Your task to perform on an android device: toggle notification dots Image 0: 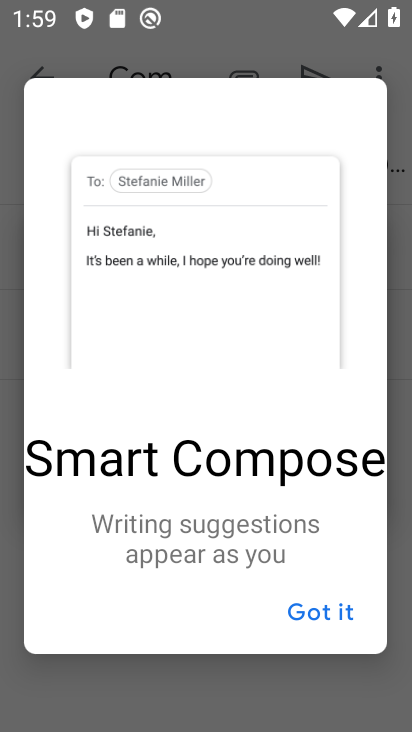
Step 0: press home button
Your task to perform on an android device: toggle notification dots Image 1: 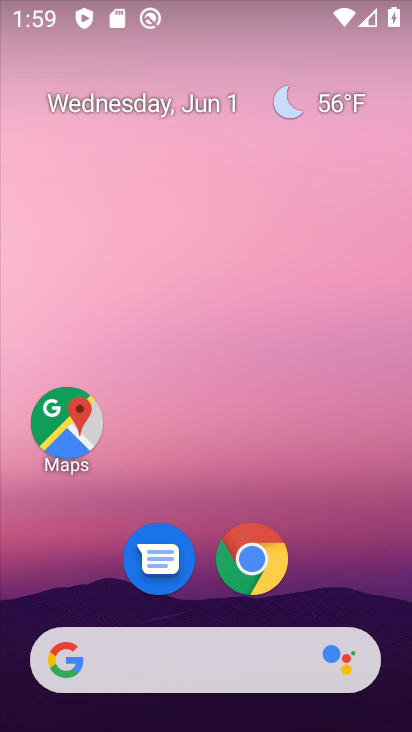
Step 1: drag from (346, 574) to (268, 187)
Your task to perform on an android device: toggle notification dots Image 2: 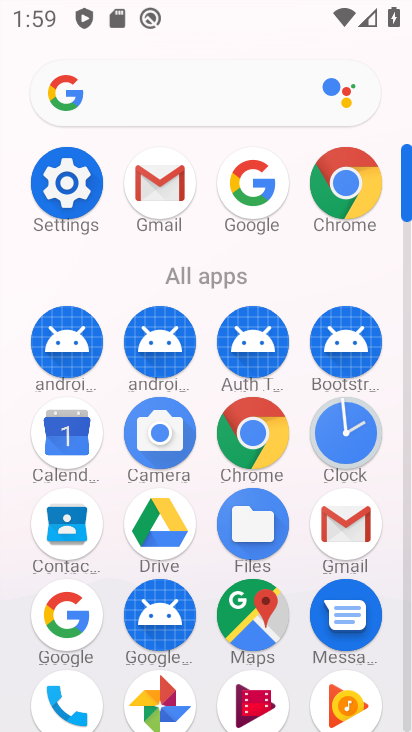
Step 2: click (63, 184)
Your task to perform on an android device: toggle notification dots Image 3: 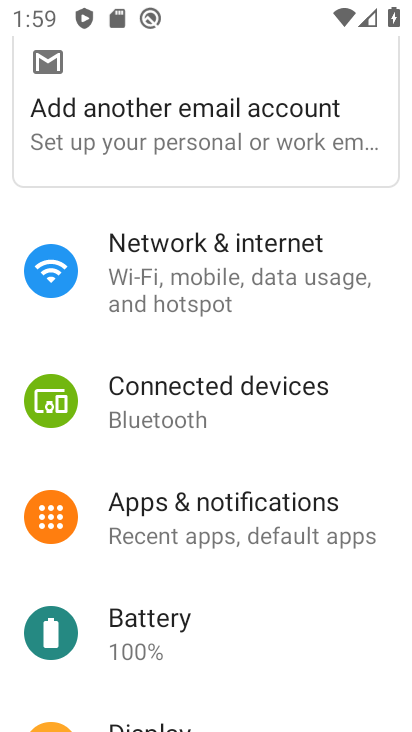
Step 3: click (225, 503)
Your task to perform on an android device: toggle notification dots Image 4: 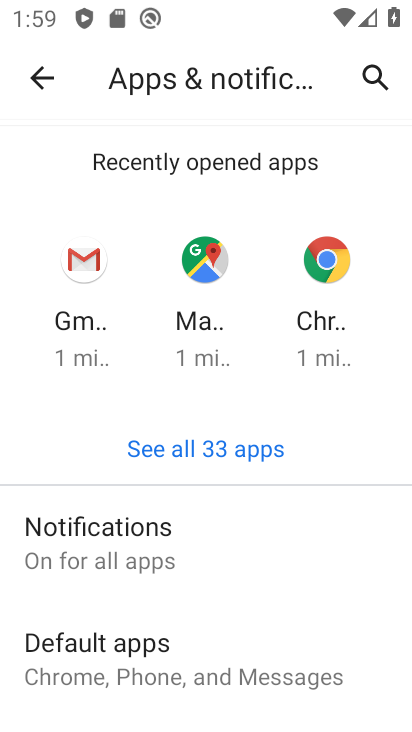
Step 4: click (147, 525)
Your task to perform on an android device: toggle notification dots Image 5: 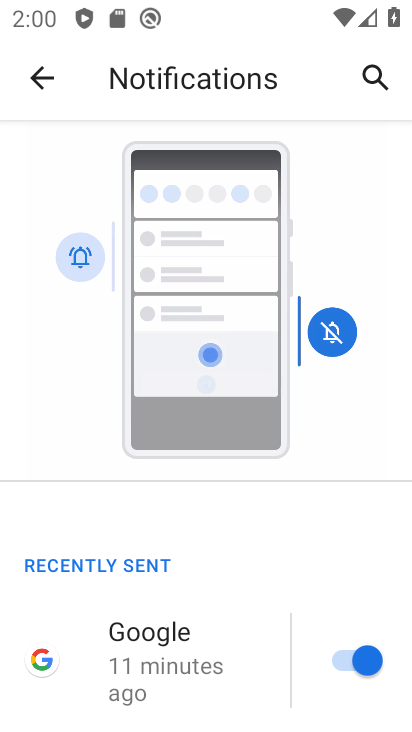
Step 5: drag from (214, 529) to (210, 333)
Your task to perform on an android device: toggle notification dots Image 6: 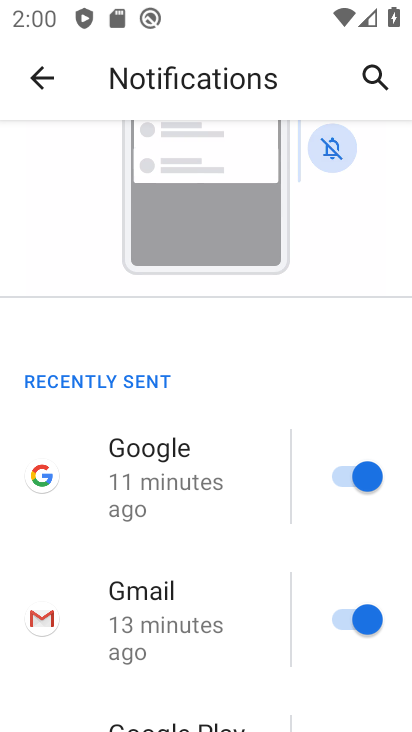
Step 6: drag from (167, 538) to (166, 337)
Your task to perform on an android device: toggle notification dots Image 7: 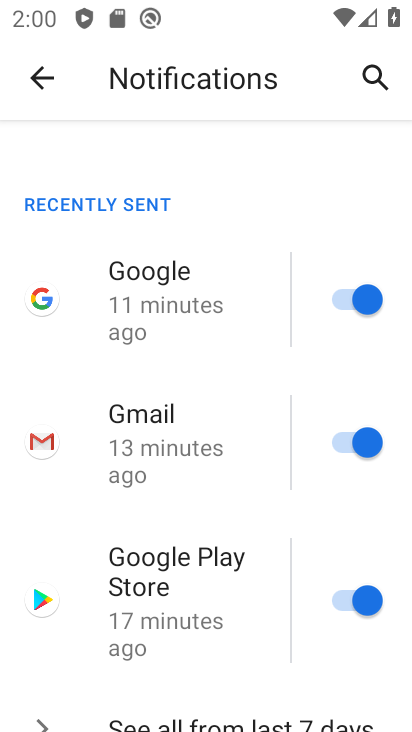
Step 7: drag from (135, 510) to (171, 337)
Your task to perform on an android device: toggle notification dots Image 8: 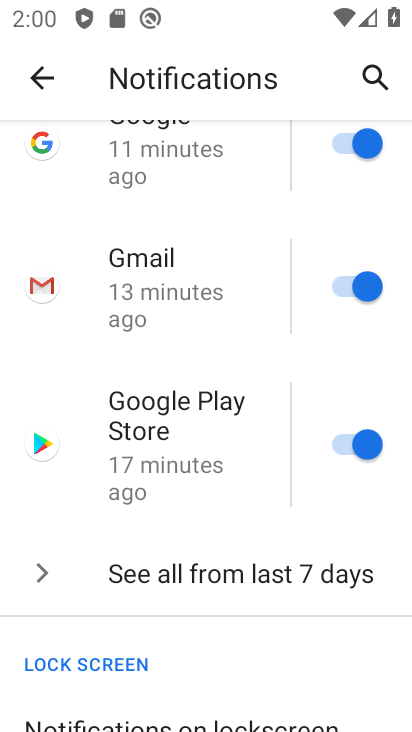
Step 8: drag from (141, 534) to (172, 380)
Your task to perform on an android device: toggle notification dots Image 9: 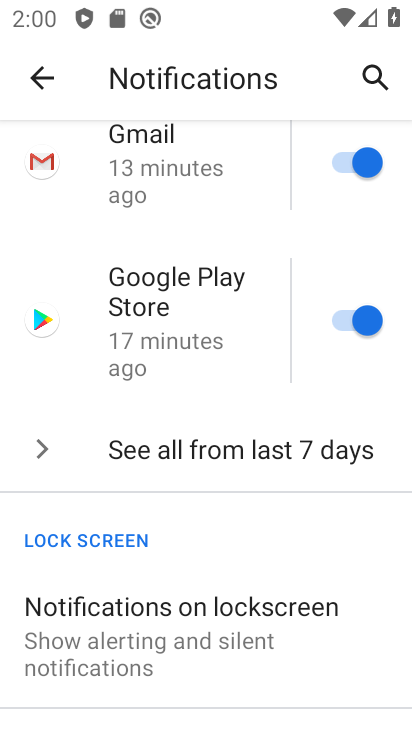
Step 9: drag from (177, 579) to (189, 402)
Your task to perform on an android device: toggle notification dots Image 10: 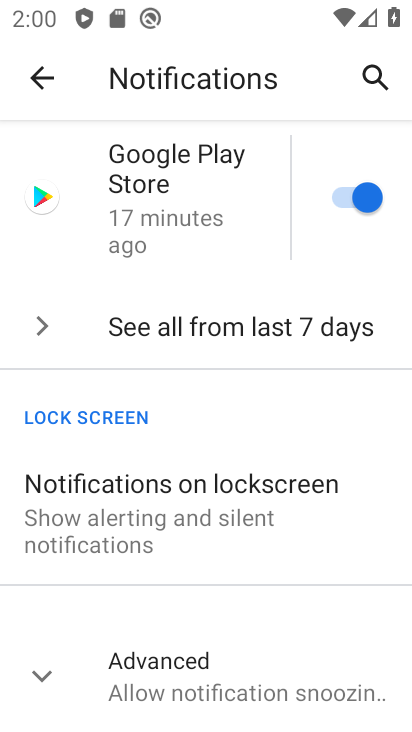
Step 10: click (202, 673)
Your task to perform on an android device: toggle notification dots Image 11: 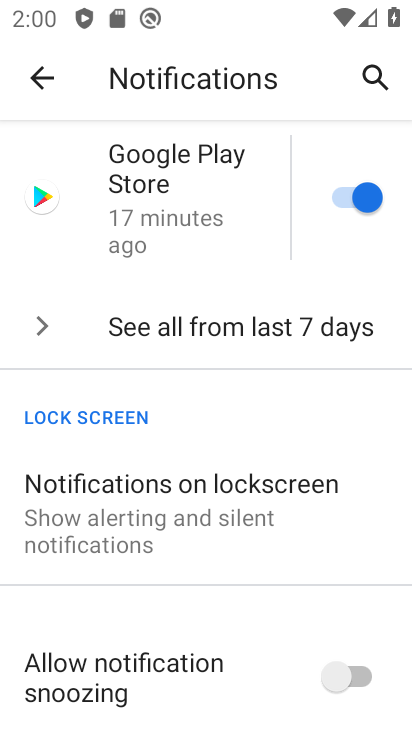
Step 11: drag from (204, 604) to (231, 460)
Your task to perform on an android device: toggle notification dots Image 12: 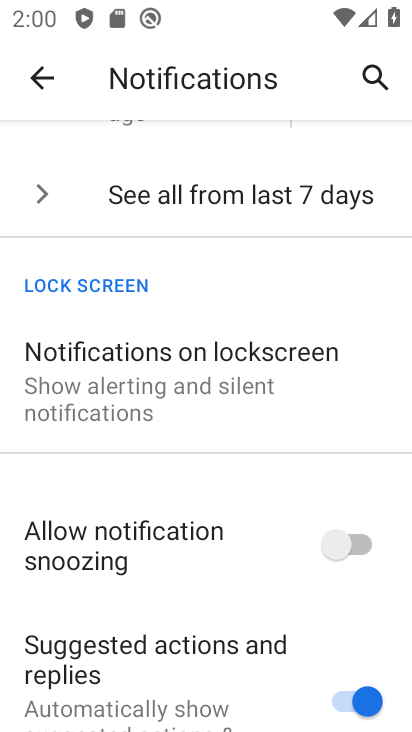
Step 12: drag from (167, 621) to (148, 454)
Your task to perform on an android device: toggle notification dots Image 13: 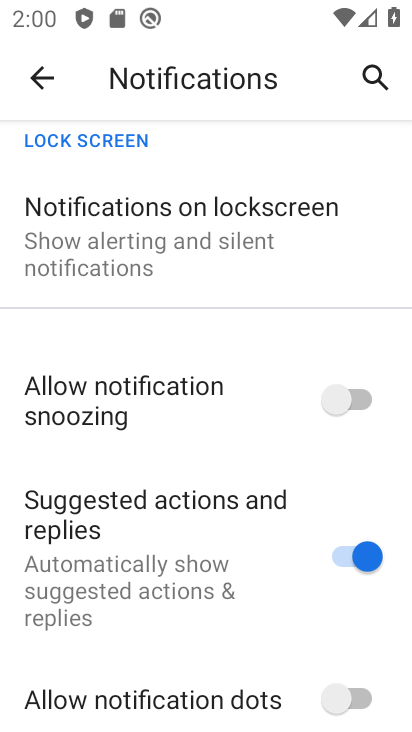
Step 13: drag from (145, 652) to (163, 488)
Your task to perform on an android device: toggle notification dots Image 14: 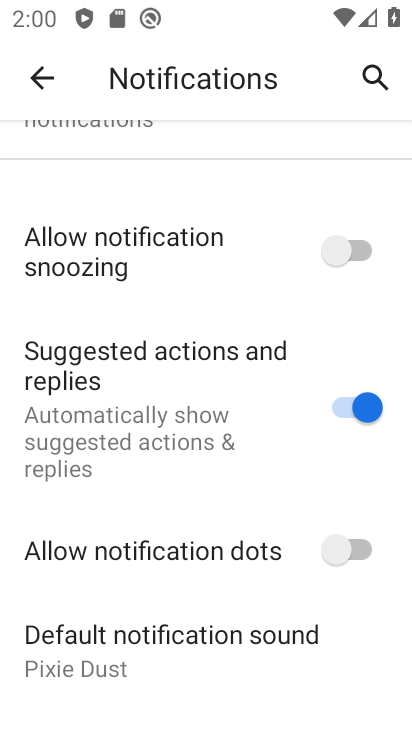
Step 14: click (333, 553)
Your task to perform on an android device: toggle notification dots Image 15: 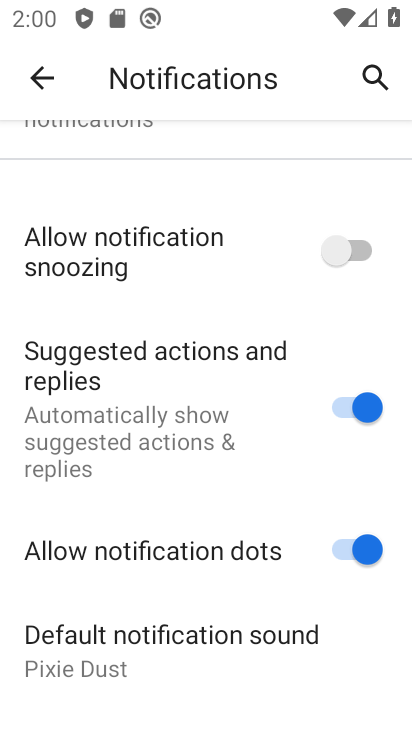
Step 15: task complete